Your task to perform on an android device: uninstall "Google Home" Image 0: 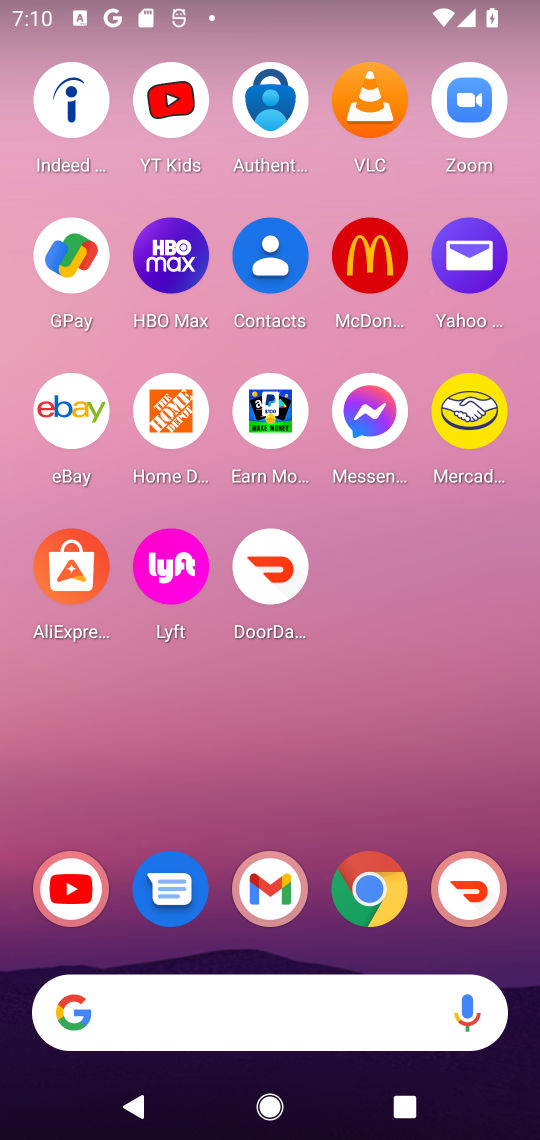
Step 0: press home button
Your task to perform on an android device: uninstall "Google Home" Image 1: 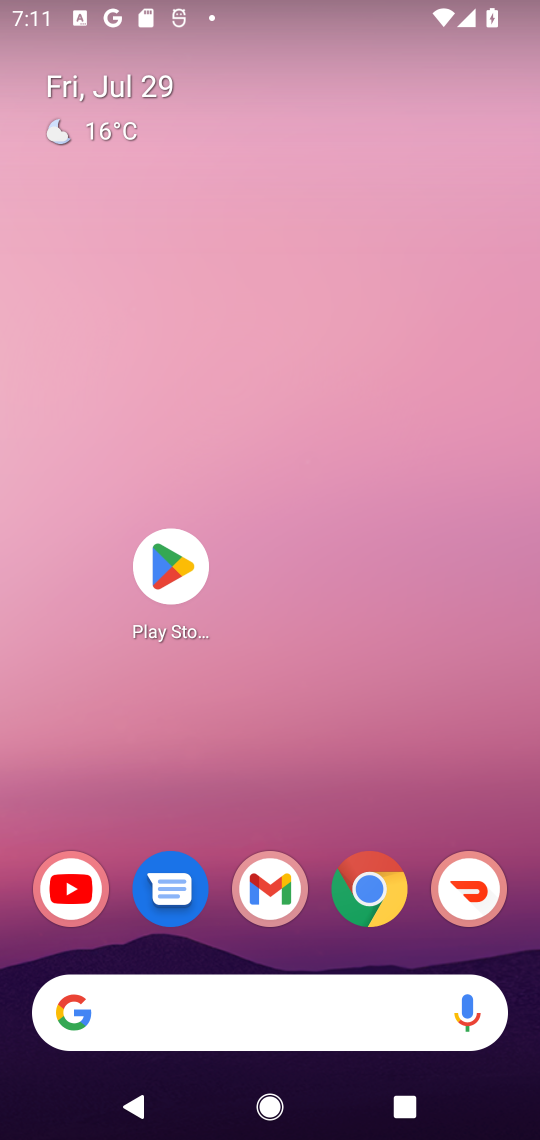
Step 1: click (157, 560)
Your task to perform on an android device: uninstall "Google Home" Image 2: 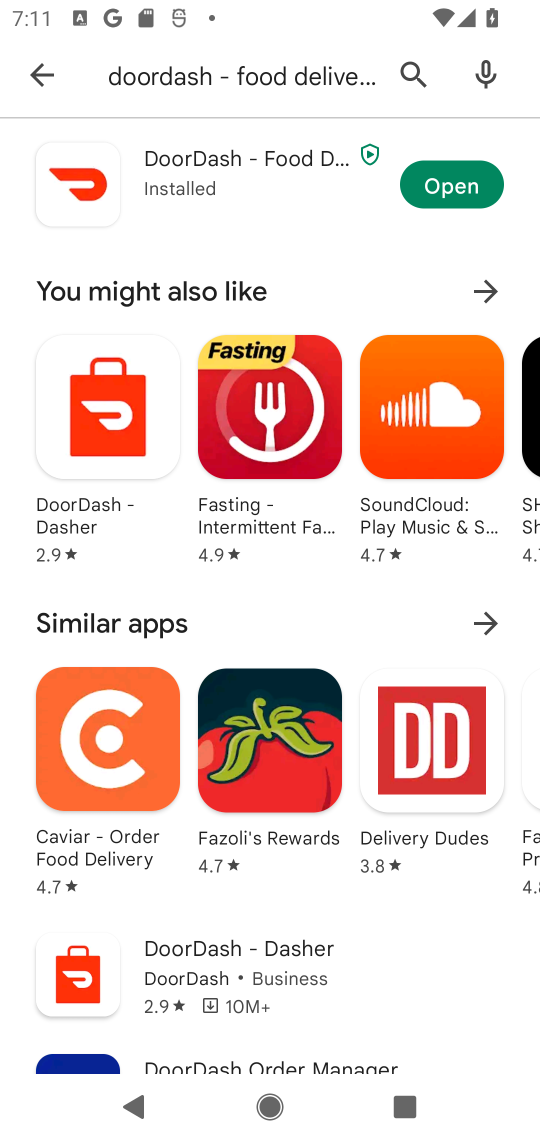
Step 2: click (410, 62)
Your task to perform on an android device: uninstall "Google Home" Image 3: 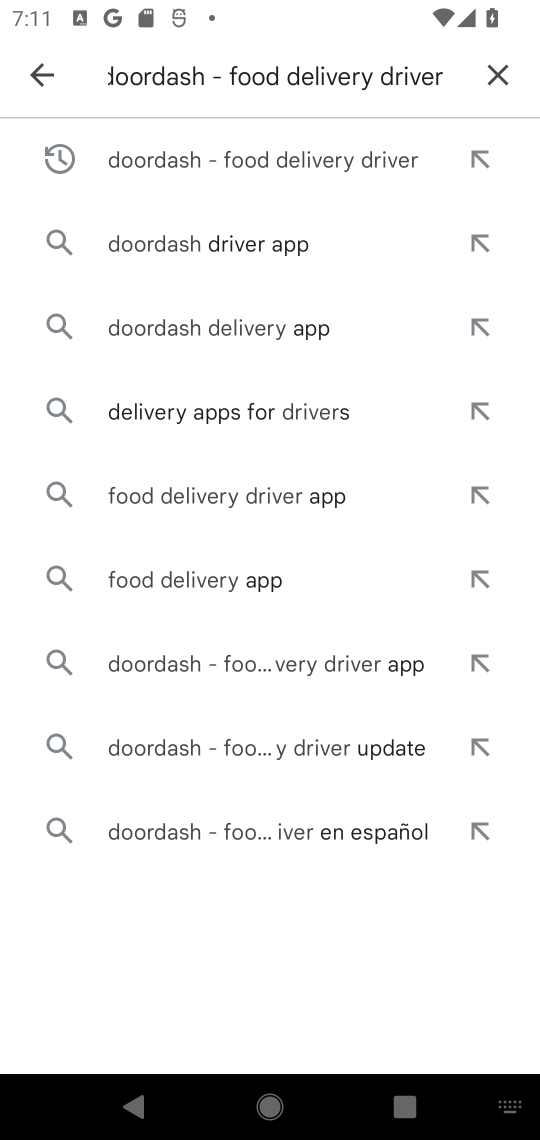
Step 3: click (499, 68)
Your task to perform on an android device: uninstall "Google Home" Image 4: 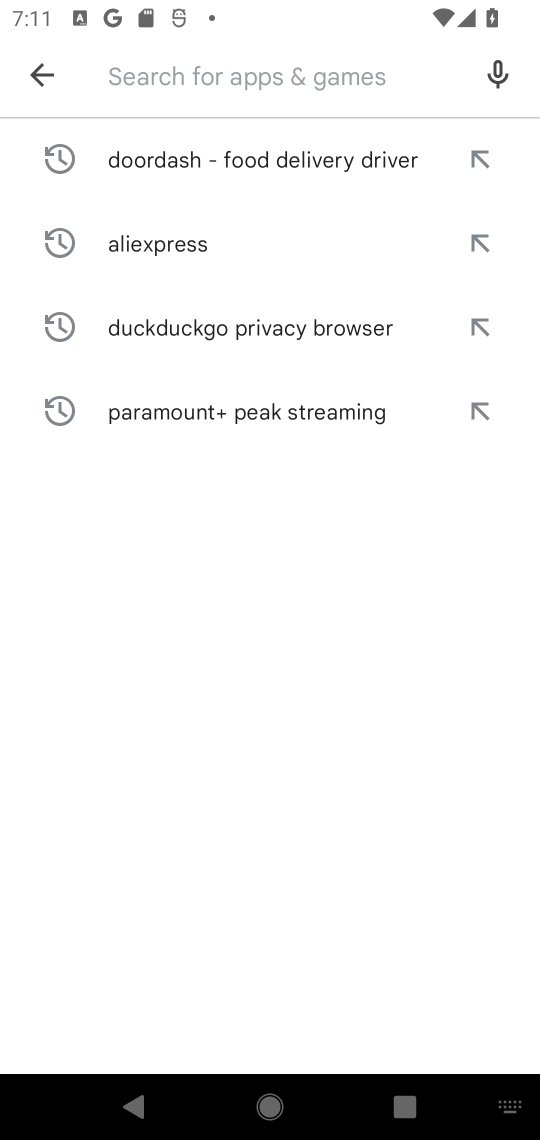
Step 4: type "Google Home"
Your task to perform on an android device: uninstall "Google Home" Image 5: 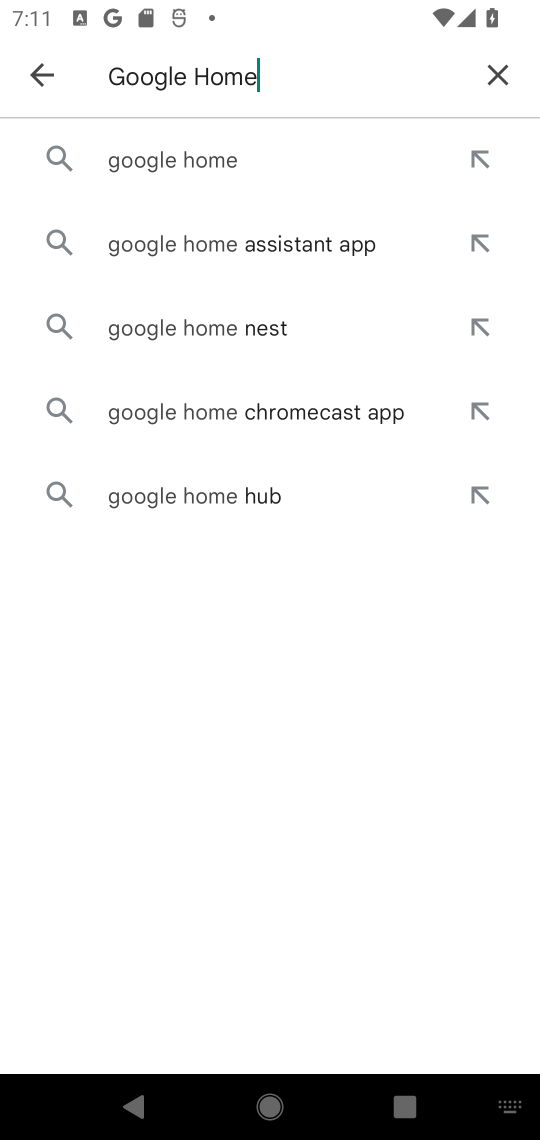
Step 5: click (222, 156)
Your task to perform on an android device: uninstall "Google Home" Image 6: 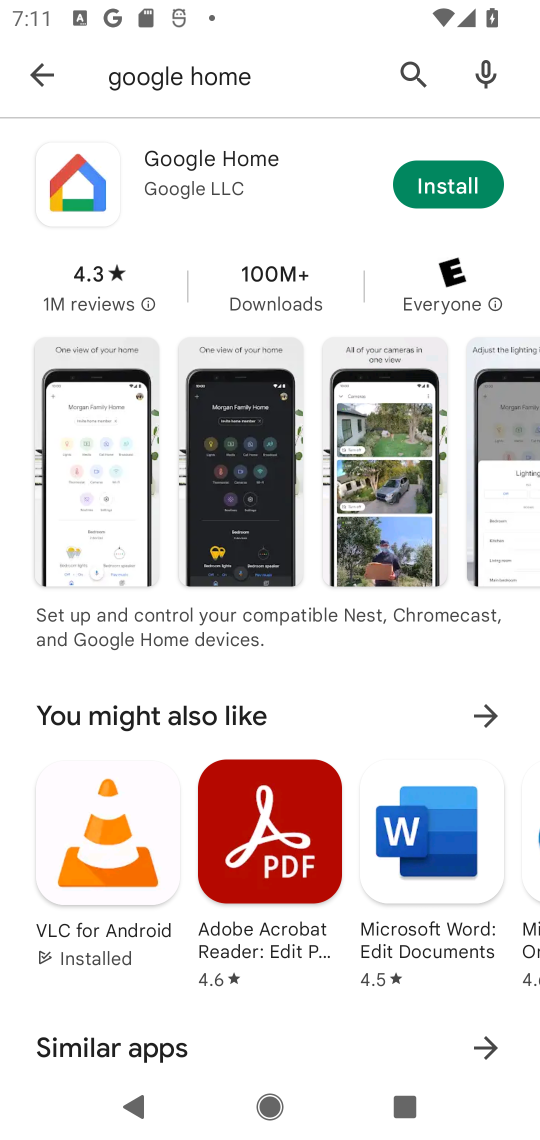
Step 6: task complete